Your task to perform on an android device: check out phone information Image 0: 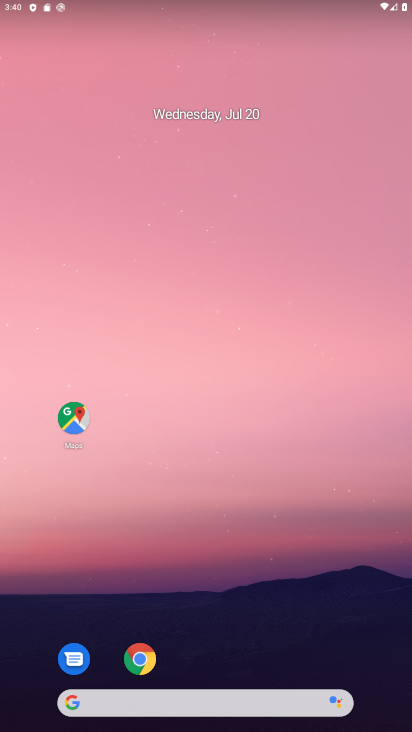
Step 0: drag from (231, 453) to (193, 135)
Your task to perform on an android device: check out phone information Image 1: 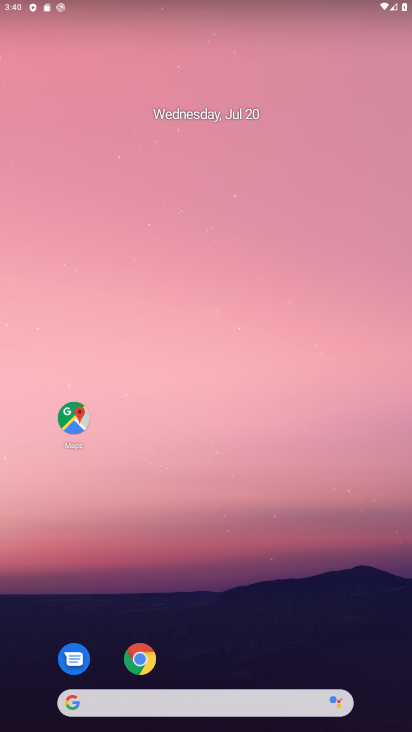
Step 1: drag from (178, 478) to (152, 152)
Your task to perform on an android device: check out phone information Image 2: 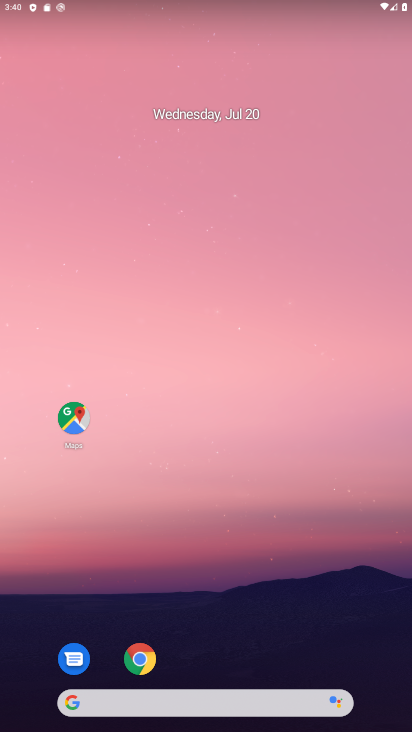
Step 2: drag from (223, 321) to (168, 2)
Your task to perform on an android device: check out phone information Image 3: 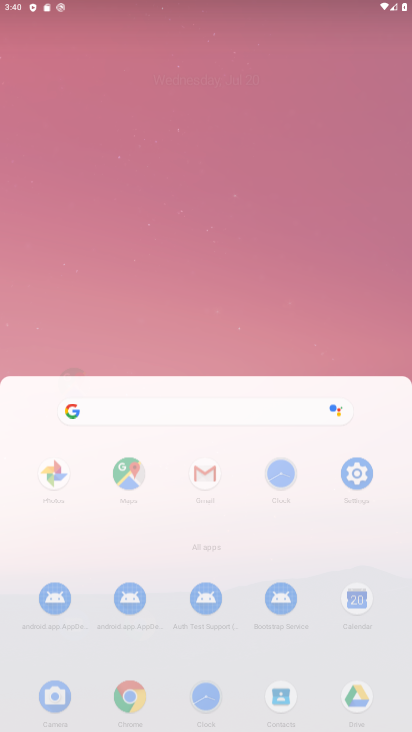
Step 3: drag from (258, 432) to (204, 90)
Your task to perform on an android device: check out phone information Image 4: 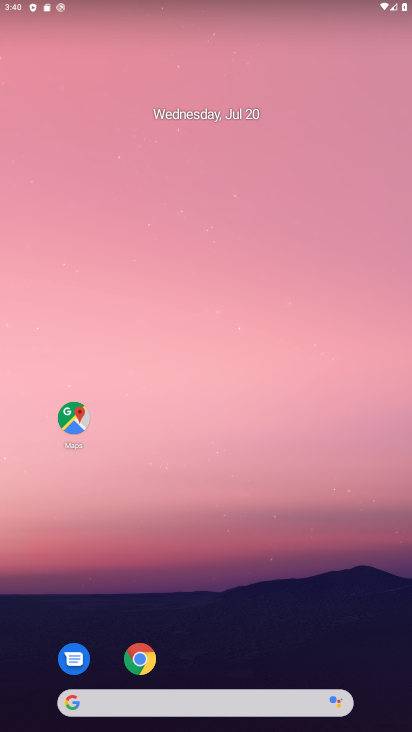
Step 4: drag from (264, 402) to (257, 35)
Your task to perform on an android device: check out phone information Image 5: 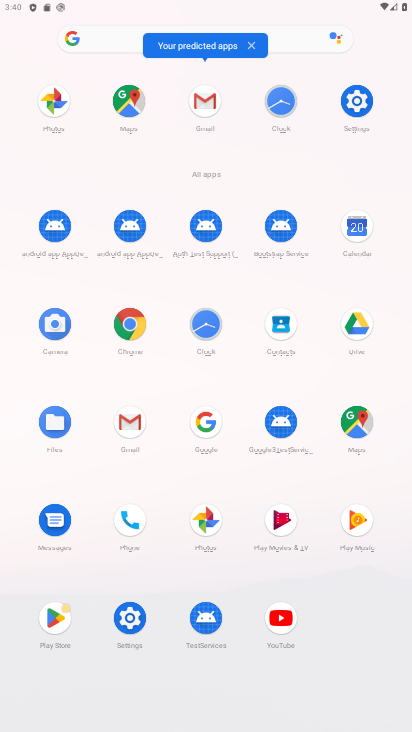
Step 5: click (358, 88)
Your task to perform on an android device: check out phone information Image 6: 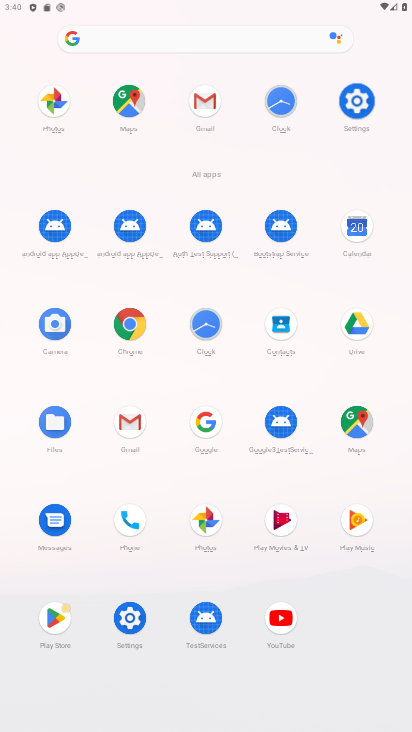
Step 6: click (358, 88)
Your task to perform on an android device: check out phone information Image 7: 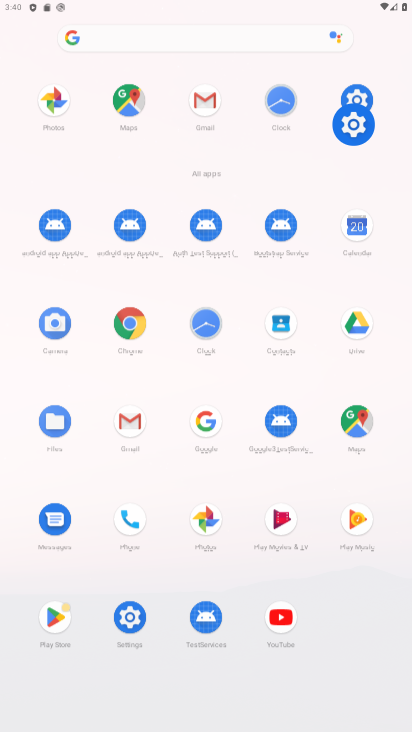
Step 7: click (360, 89)
Your task to perform on an android device: check out phone information Image 8: 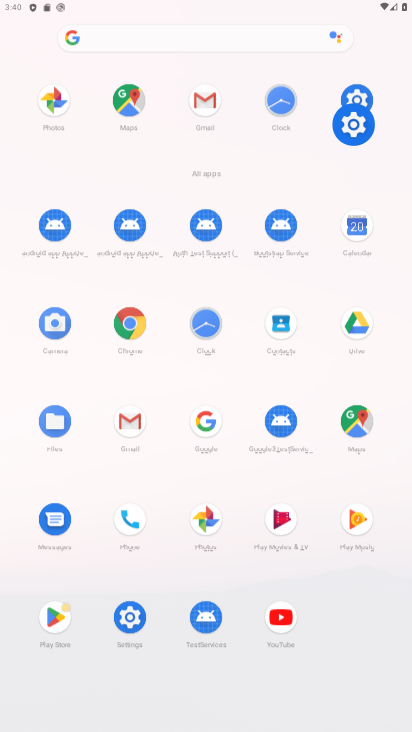
Step 8: click (360, 89)
Your task to perform on an android device: check out phone information Image 9: 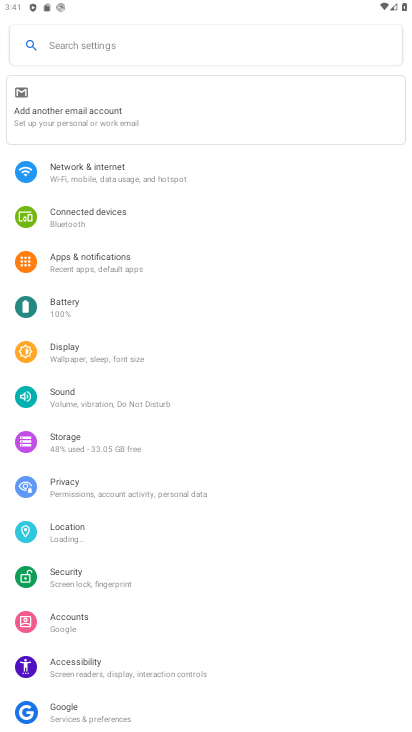
Step 9: drag from (72, 693) to (202, 308)
Your task to perform on an android device: check out phone information Image 10: 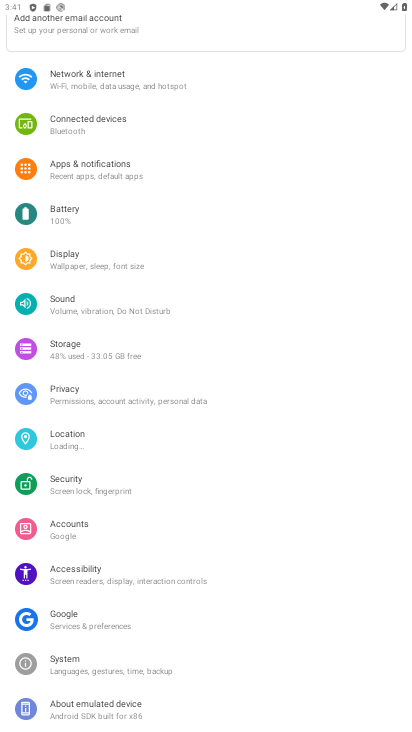
Step 10: click (81, 703)
Your task to perform on an android device: check out phone information Image 11: 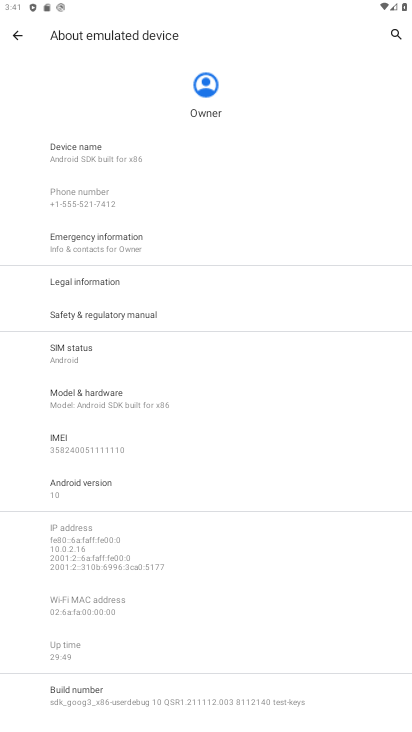
Step 11: click (7, 21)
Your task to perform on an android device: check out phone information Image 12: 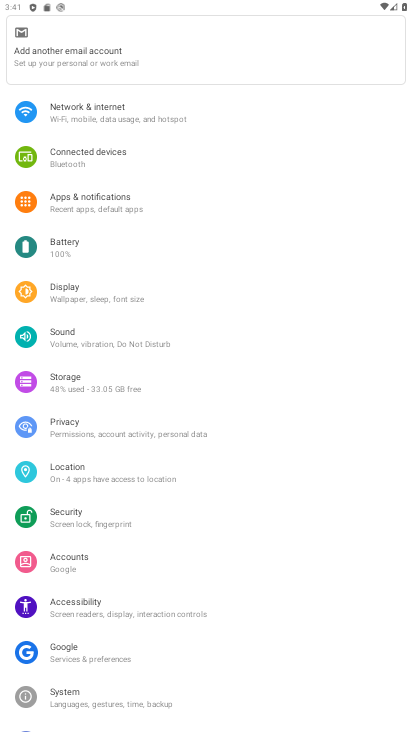
Step 12: click (86, 295)
Your task to perform on an android device: check out phone information Image 13: 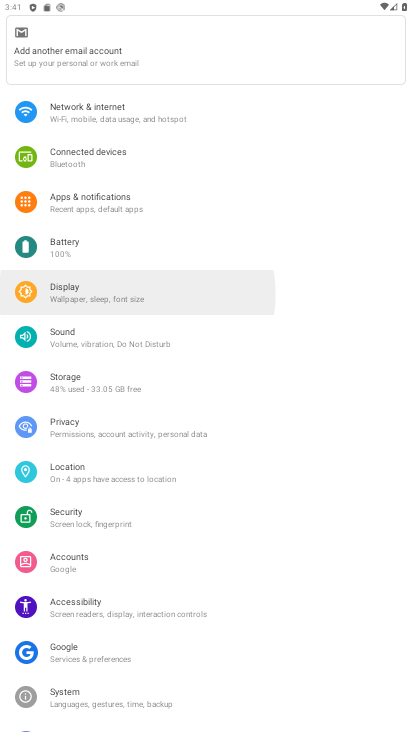
Step 13: click (93, 293)
Your task to perform on an android device: check out phone information Image 14: 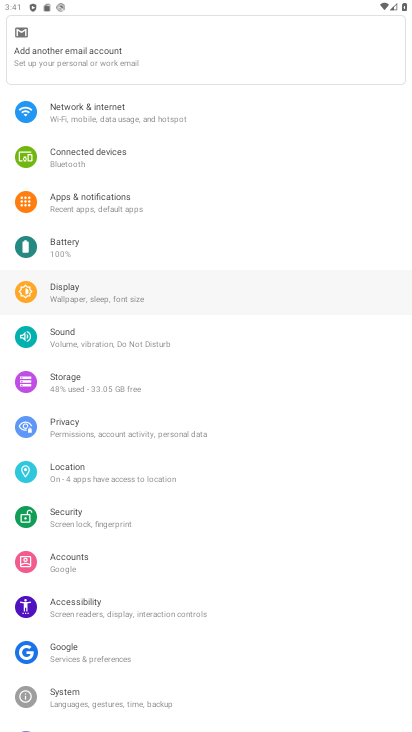
Step 14: click (95, 293)
Your task to perform on an android device: check out phone information Image 15: 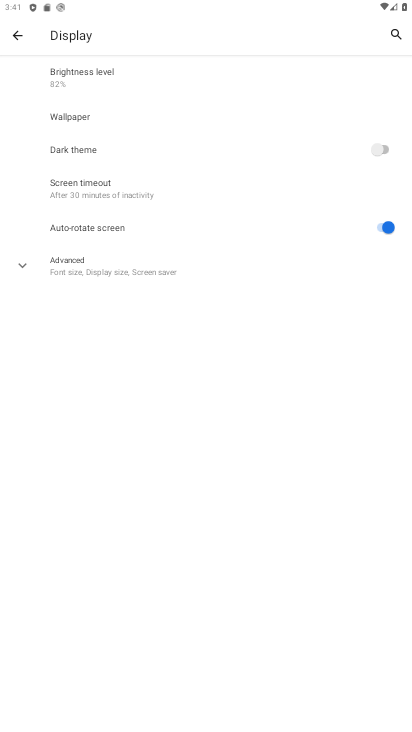
Step 15: click (89, 202)
Your task to perform on an android device: check out phone information Image 16: 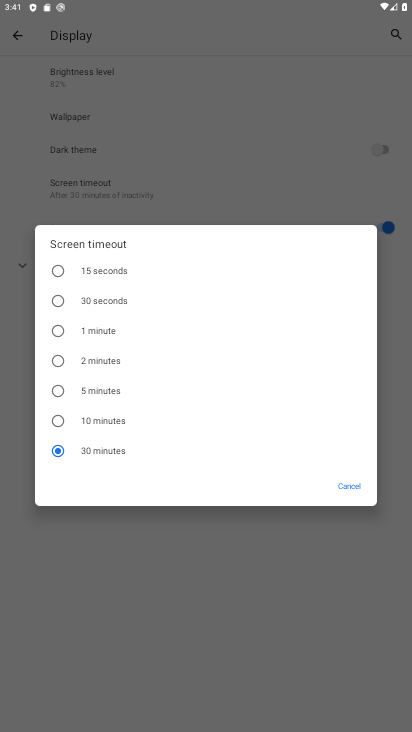
Step 16: click (63, 408)
Your task to perform on an android device: check out phone information Image 17: 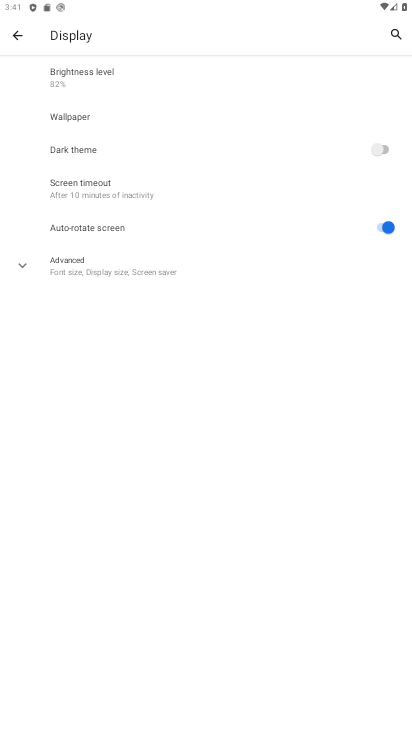
Step 17: click (63, 402)
Your task to perform on an android device: check out phone information Image 18: 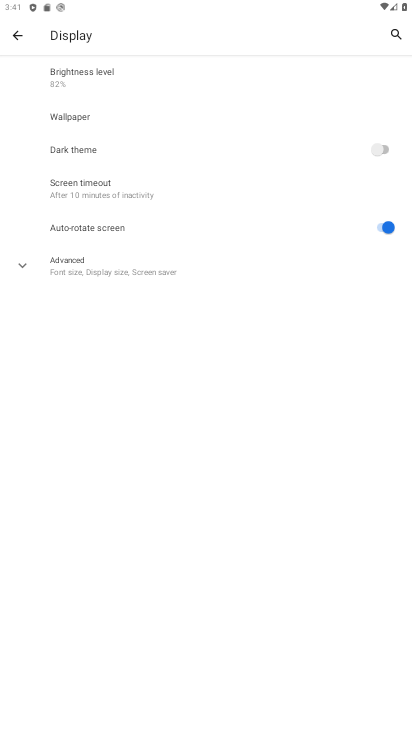
Step 18: task complete